Your task to perform on an android device: open a new tab in the chrome app Image 0: 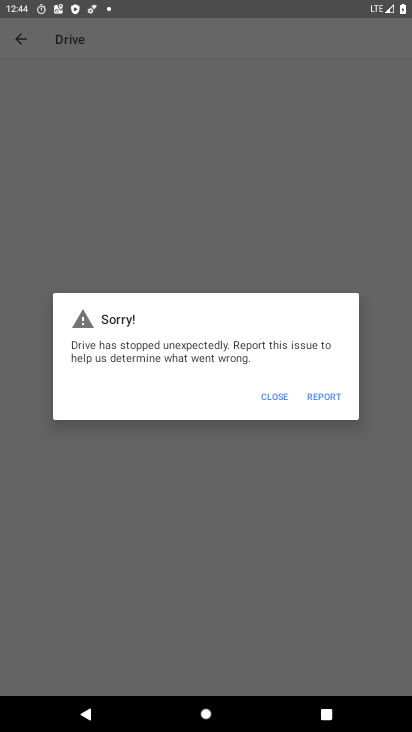
Step 0: press home button
Your task to perform on an android device: open a new tab in the chrome app Image 1: 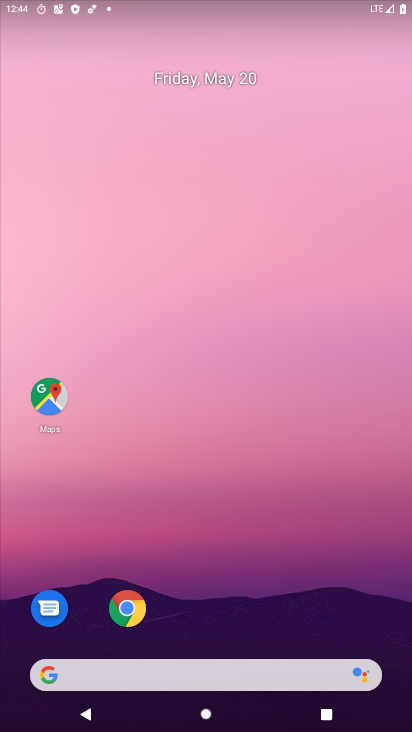
Step 1: drag from (388, 607) to (326, 31)
Your task to perform on an android device: open a new tab in the chrome app Image 2: 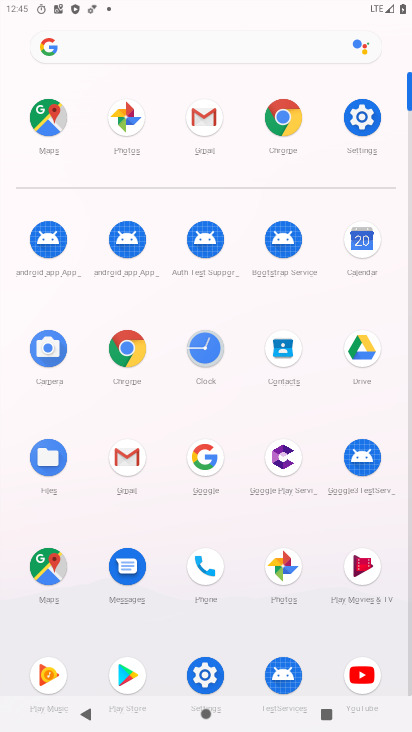
Step 2: click (129, 374)
Your task to perform on an android device: open a new tab in the chrome app Image 3: 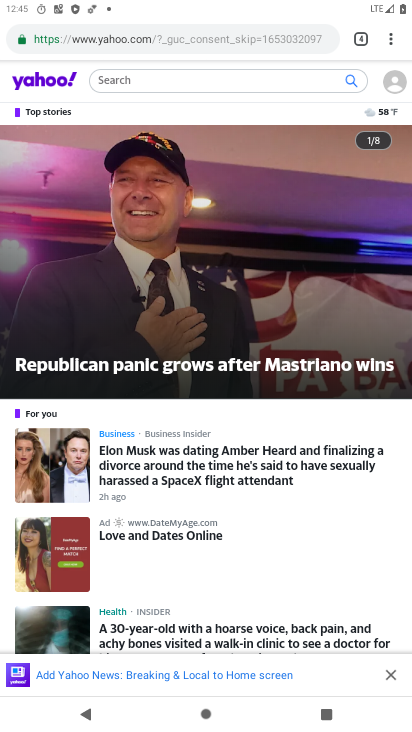
Step 3: click (360, 40)
Your task to perform on an android device: open a new tab in the chrome app Image 4: 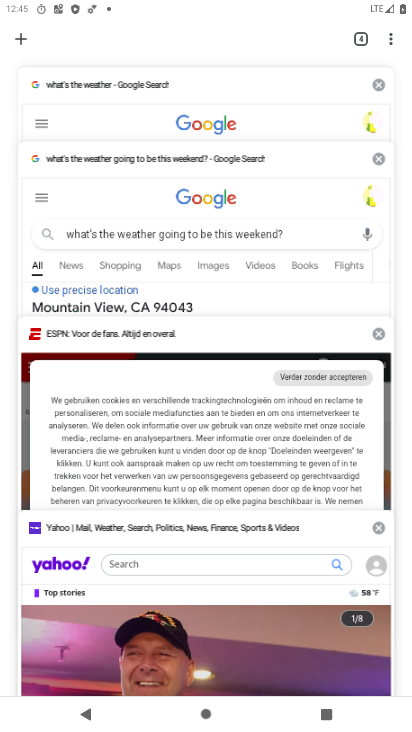
Step 4: click (12, 36)
Your task to perform on an android device: open a new tab in the chrome app Image 5: 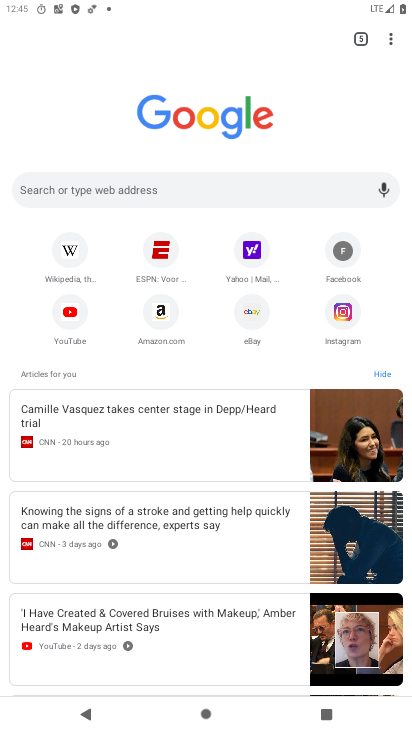
Step 5: task complete